Your task to perform on an android device: find photos in the google photos app Image 0: 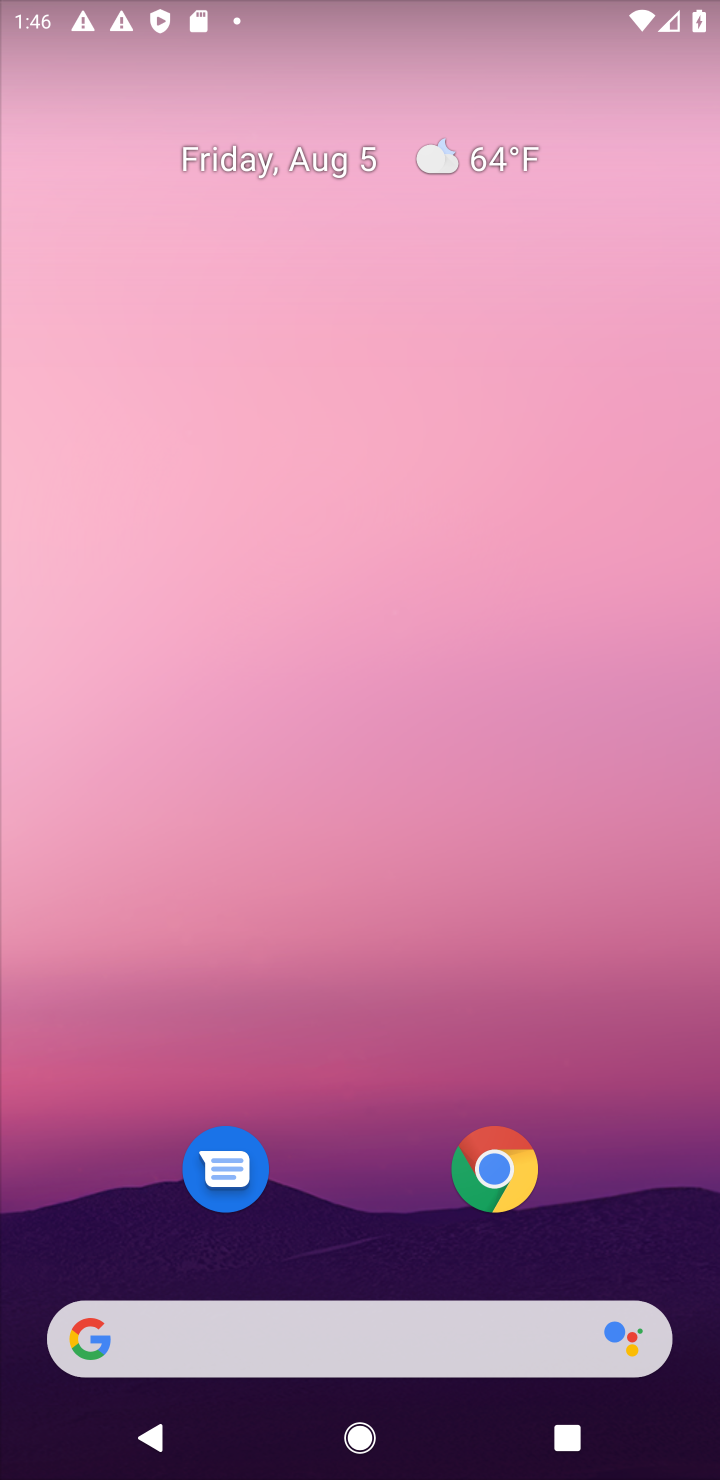
Step 0: drag from (366, 552) to (366, 169)
Your task to perform on an android device: find photos in the google photos app Image 1: 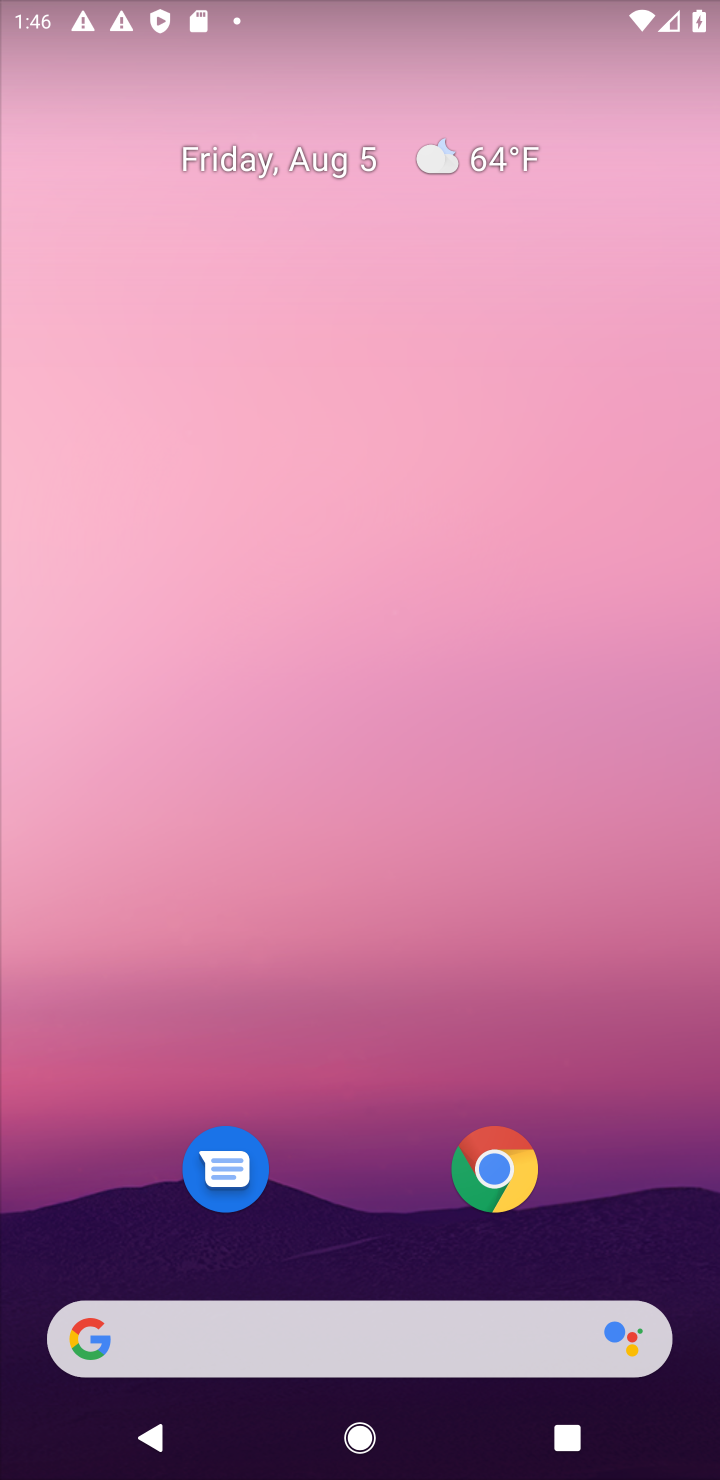
Step 1: drag from (331, 1160) to (328, 304)
Your task to perform on an android device: find photos in the google photos app Image 2: 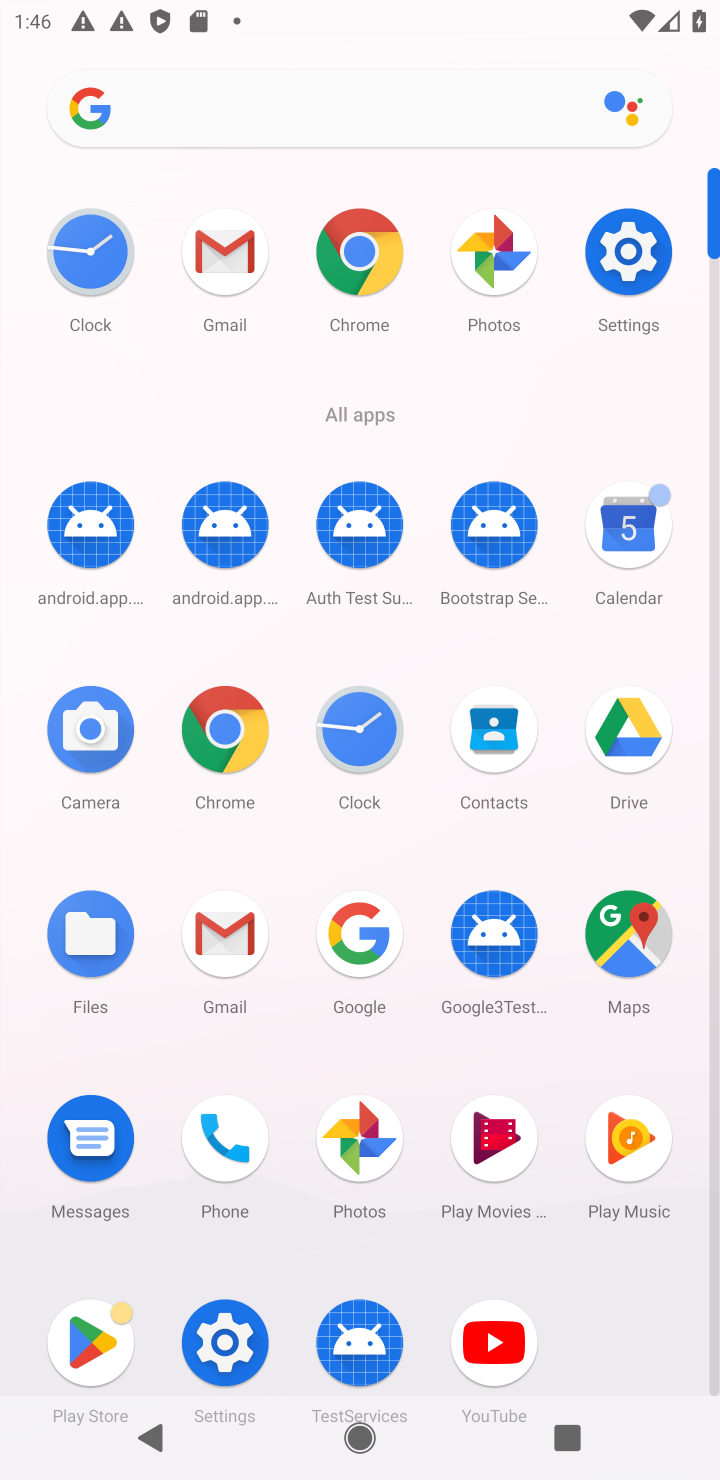
Step 2: click (497, 282)
Your task to perform on an android device: find photos in the google photos app Image 3: 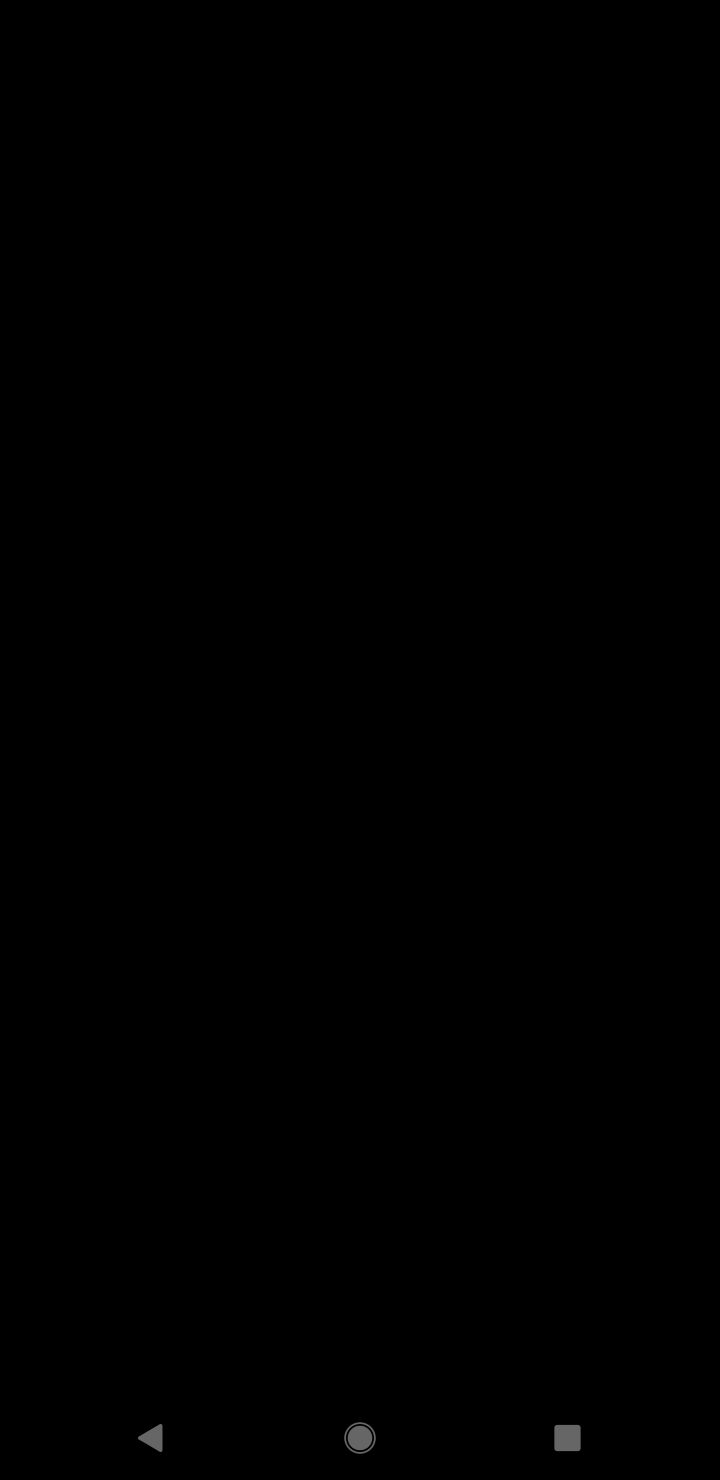
Step 3: task complete